Your task to perform on an android device: stop showing notifications on the lock screen Image 0: 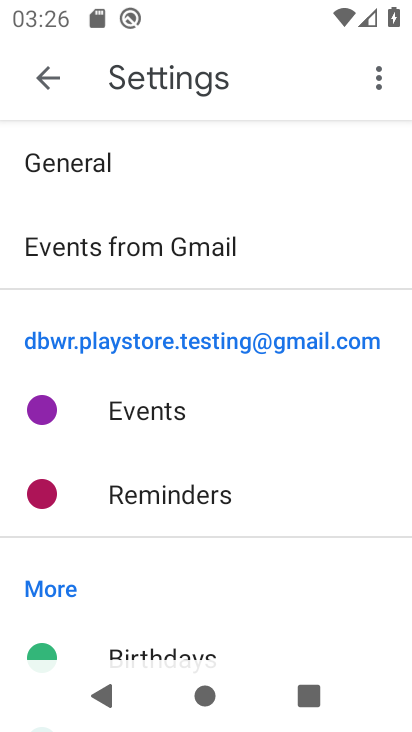
Step 0: press back button
Your task to perform on an android device: stop showing notifications on the lock screen Image 1: 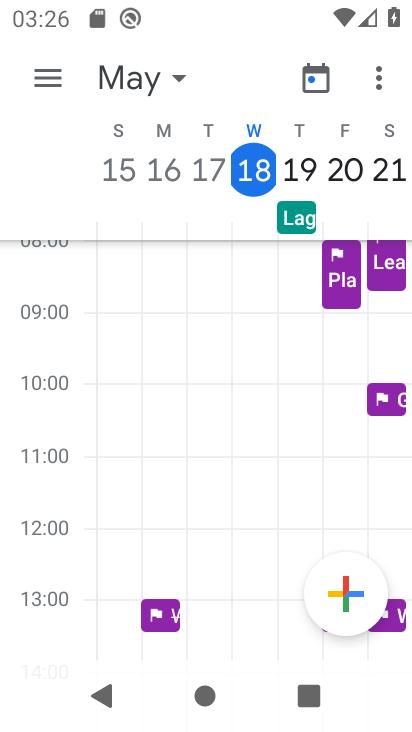
Step 1: press back button
Your task to perform on an android device: stop showing notifications on the lock screen Image 2: 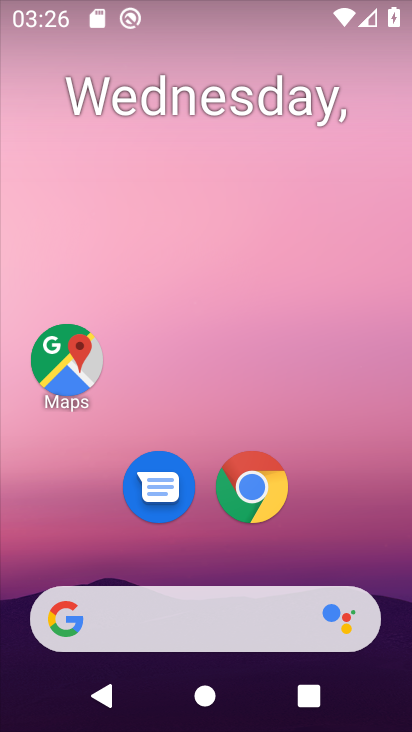
Step 2: drag from (331, 537) to (188, 70)
Your task to perform on an android device: stop showing notifications on the lock screen Image 3: 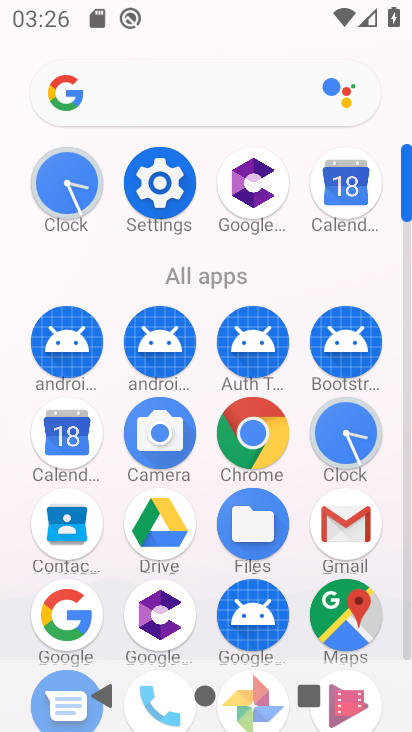
Step 3: click (158, 185)
Your task to perform on an android device: stop showing notifications on the lock screen Image 4: 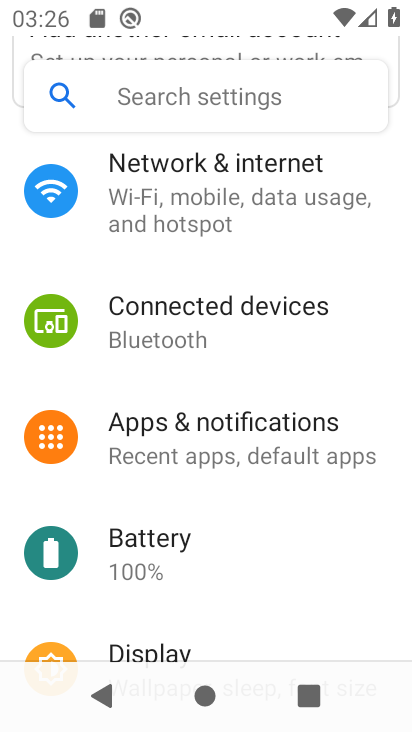
Step 4: click (226, 424)
Your task to perform on an android device: stop showing notifications on the lock screen Image 5: 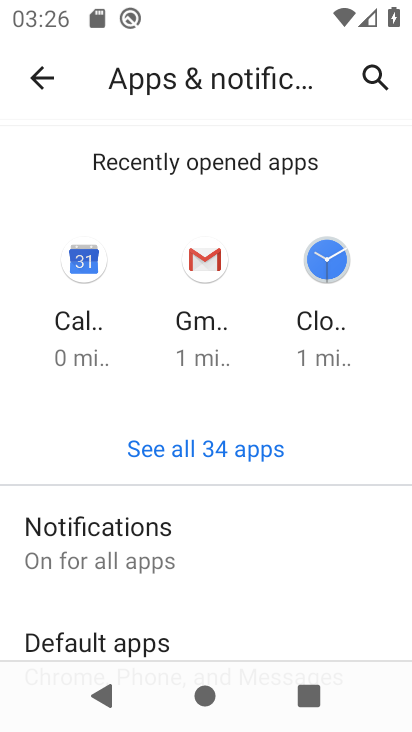
Step 5: drag from (108, 560) to (161, 442)
Your task to perform on an android device: stop showing notifications on the lock screen Image 6: 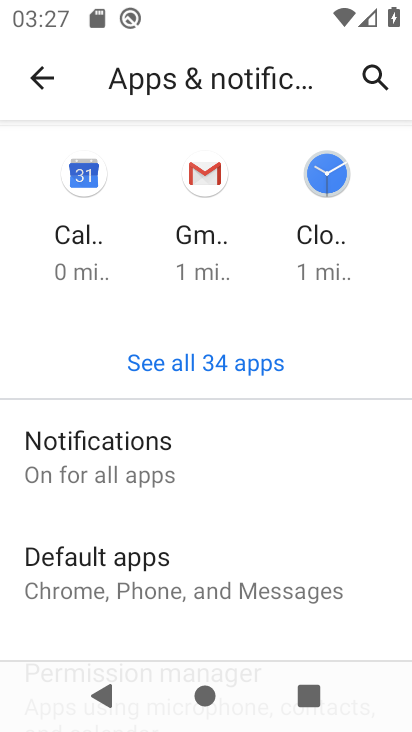
Step 6: click (140, 451)
Your task to perform on an android device: stop showing notifications on the lock screen Image 7: 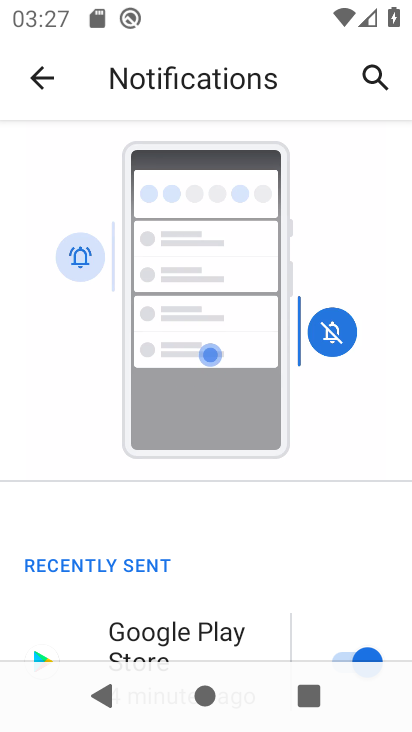
Step 7: drag from (176, 524) to (195, 465)
Your task to perform on an android device: stop showing notifications on the lock screen Image 8: 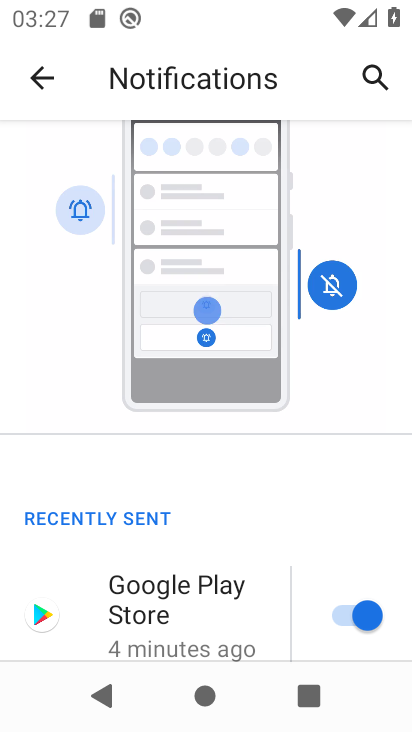
Step 8: drag from (205, 517) to (238, 442)
Your task to perform on an android device: stop showing notifications on the lock screen Image 9: 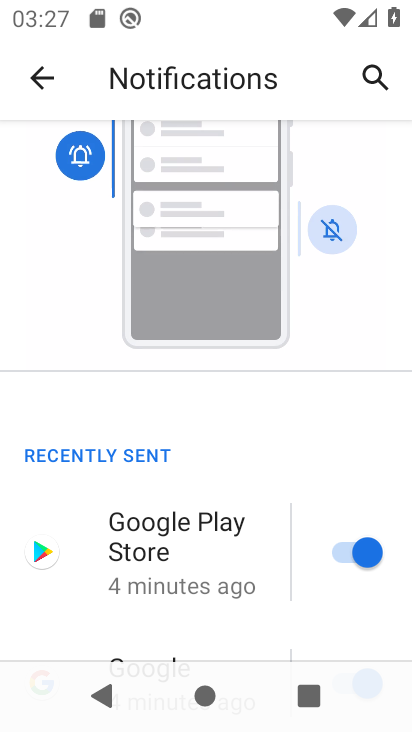
Step 9: drag from (206, 541) to (224, 478)
Your task to perform on an android device: stop showing notifications on the lock screen Image 10: 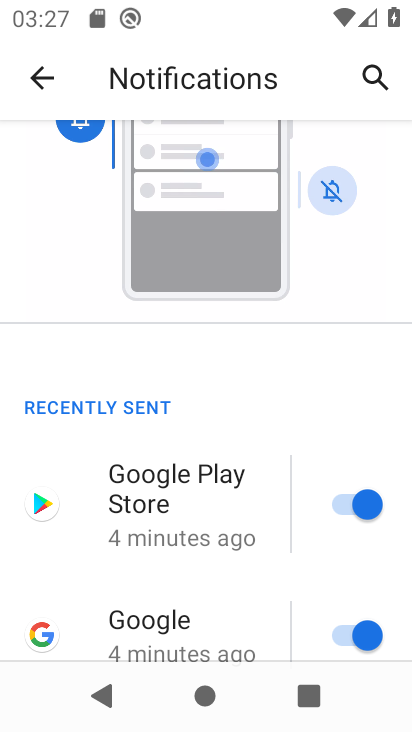
Step 10: drag from (188, 558) to (236, 474)
Your task to perform on an android device: stop showing notifications on the lock screen Image 11: 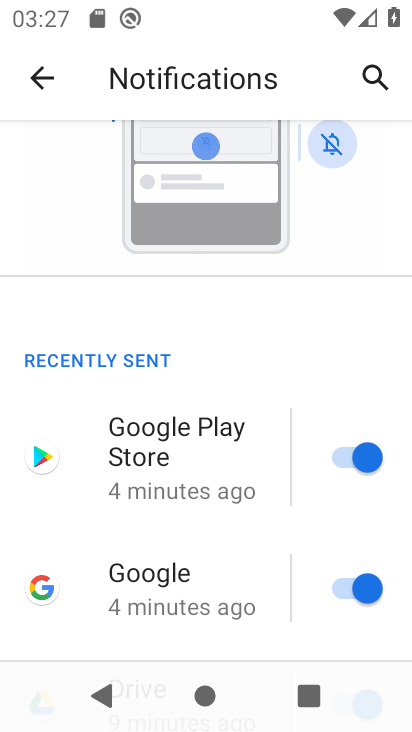
Step 11: drag from (192, 538) to (264, 426)
Your task to perform on an android device: stop showing notifications on the lock screen Image 12: 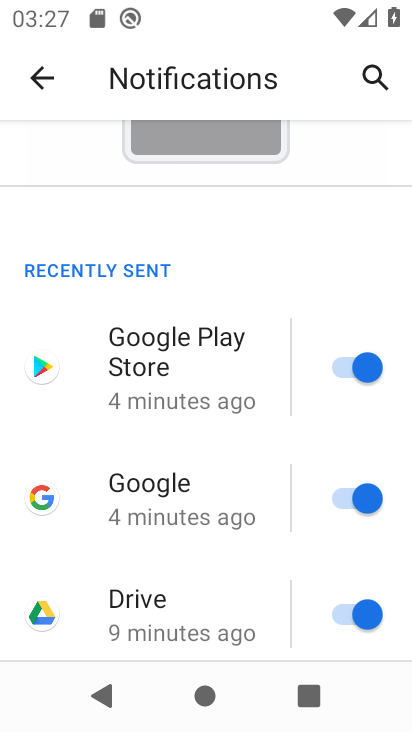
Step 12: drag from (182, 572) to (224, 480)
Your task to perform on an android device: stop showing notifications on the lock screen Image 13: 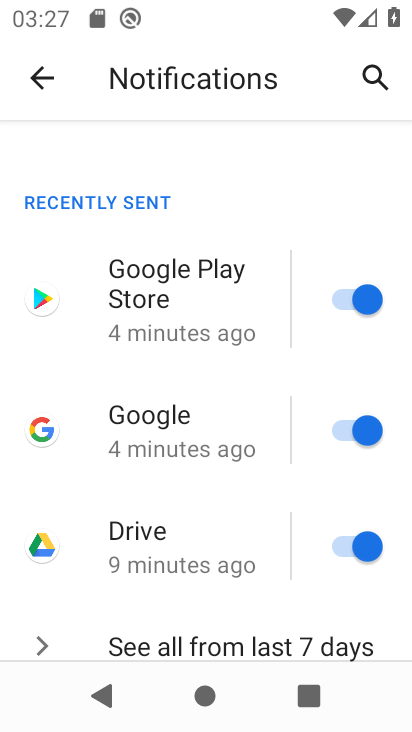
Step 13: drag from (178, 595) to (214, 518)
Your task to perform on an android device: stop showing notifications on the lock screen Image 14: 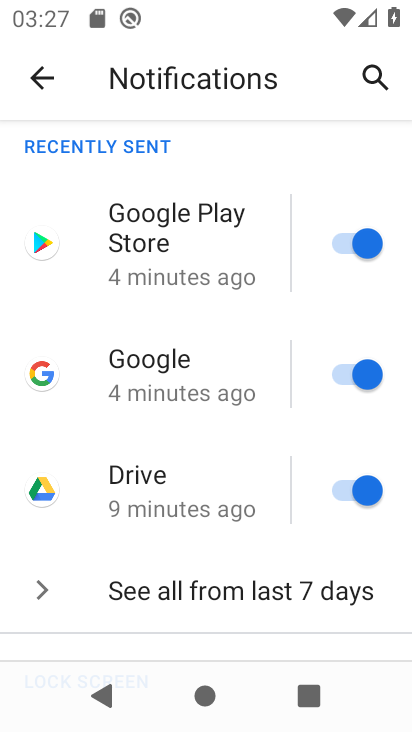
Step 14: drag from (143, 585) to (230, 473)
Your task to perform on an android device: stop showing notifications on the lock screen Image 15: 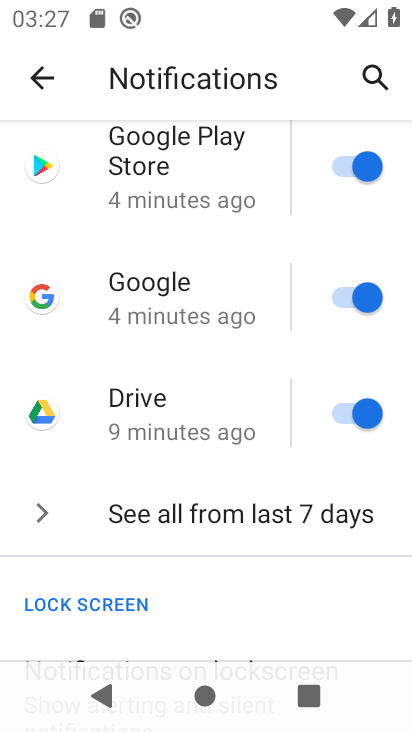
Step 15: drag from (151, 585) to (216, 477)
Your task to perform on an android device: stop showing notifications on the lock screen Image 16: 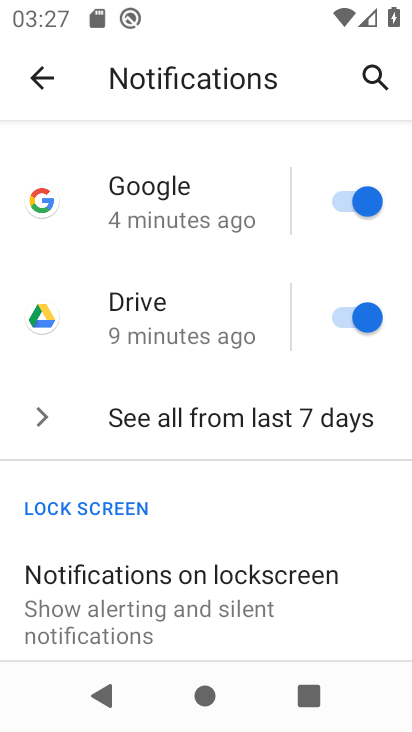
Step 16: drag from (197, 549) to (249, 479)
Your task to perform on an android device: stop showing notifications on the lock screen Image 17: 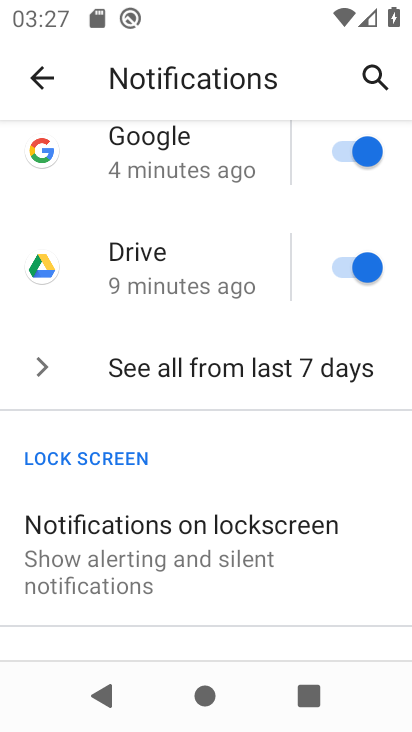
Step 17: click (202, 525)
Your task to perform on an android device: stop showing notifications on the lock screen Image 18: 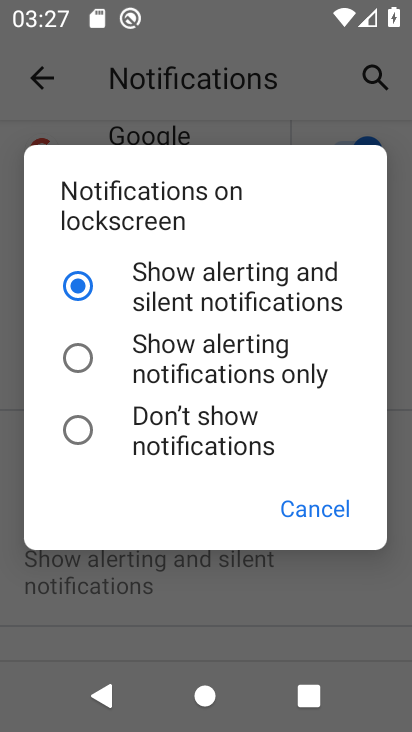
Step 18: click (79, 429)
Your task to perform on an android device: stop showing notifications on the lock screen Image 19: 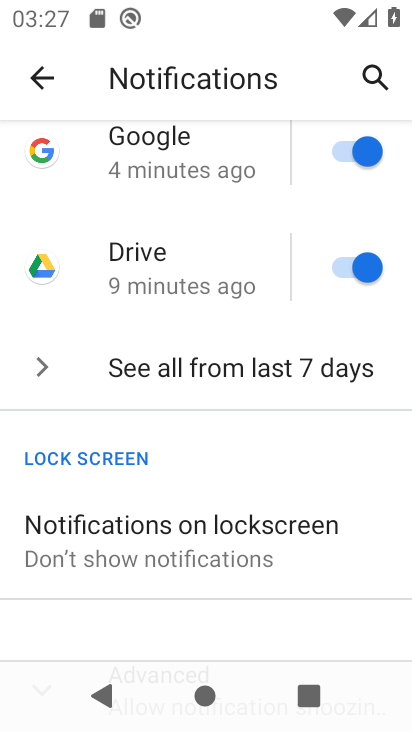
Step 19: task complete